Your task to perform on an android device: open the mobile data screen to see how much data has been used Image 0: 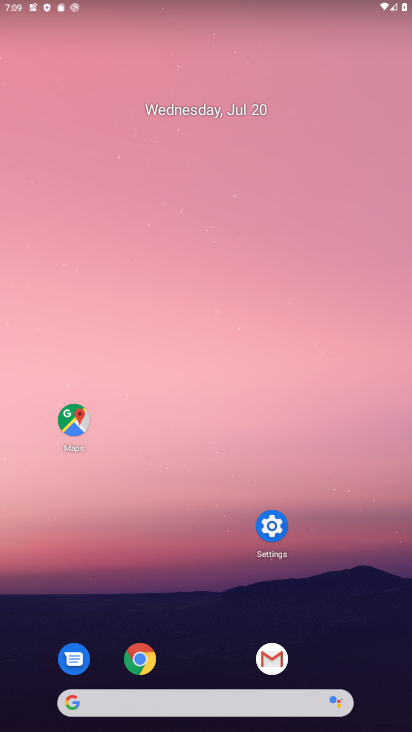
Step 0: click (277, 524)
Your task to perform on an android device: open the mobile data screen to see how much data has been used Image 1: 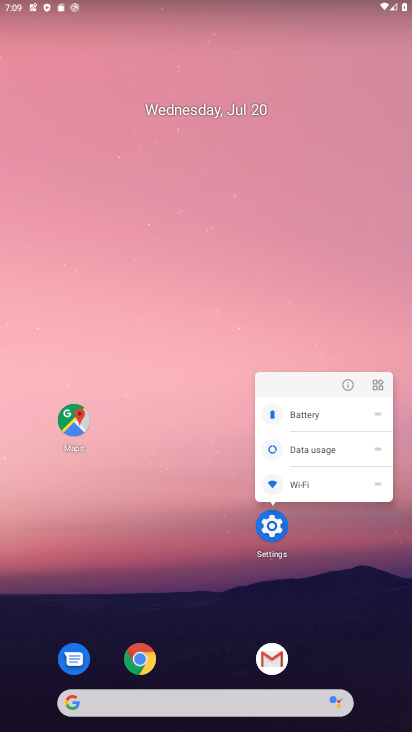
Step 1: click (263, 522)
Your task to perform on an android device: open the mobile data screen to see how much data has been used Image 2: 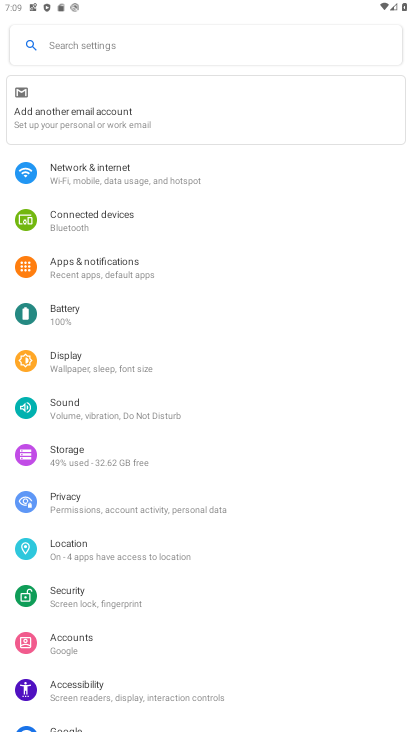
Step 2: click (93, 39)
Your task to perform on an android device: open the mobile data screen to see how much data has been used Image 3: 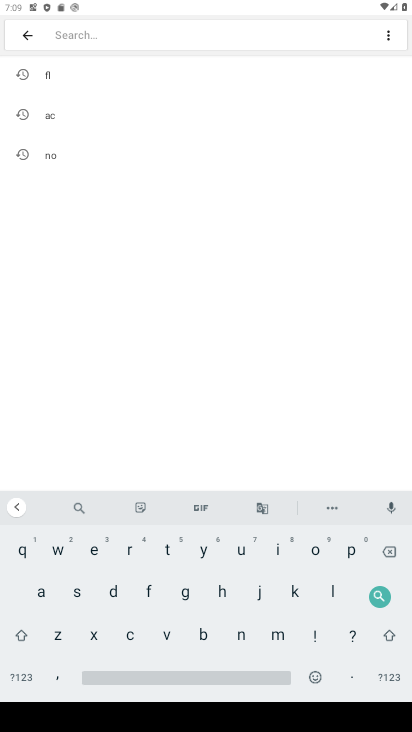
Step 3: click (113, 591)
Your task to perform on an android device: open the mobile data screen to see how much data has been used Image 4: 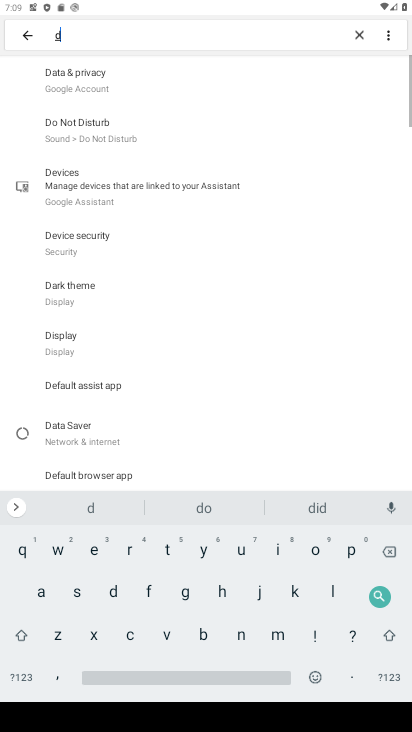
Step 4: click (38, 588)
Your task to perform on an android device: open the mobile data screen to see how much data has been used Image 5: 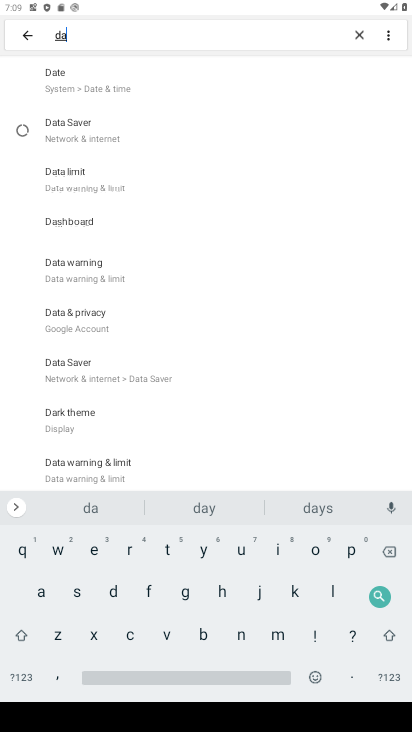
Step 5: click (166, 552)
Your task to perform on an android device: open the mobile data screen to see how much data has been used Image 6: 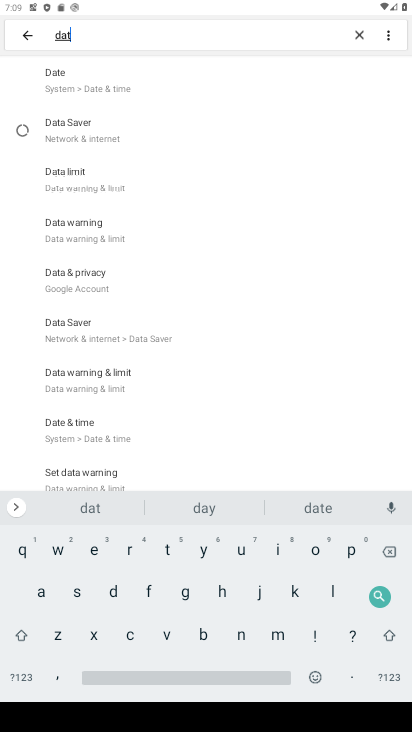
Step 6: click (42, 588)
Your task to perform on an android device: open the mobile data screen to see how much data has been used Image 7: 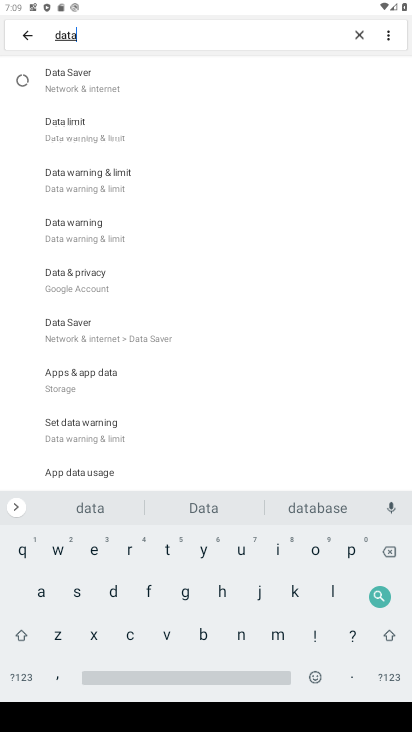
Step 7: click (154, 674)
Your task to perform on an android device: open the mobile data screen to see how much data has been used Image 8: 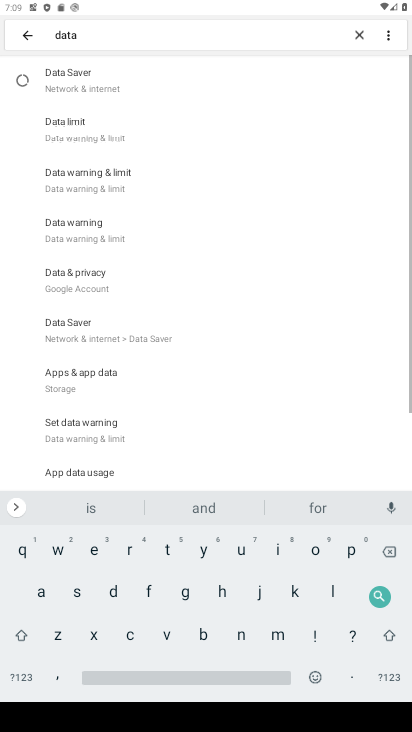
Step 8: click (240, 551)
Your task to perform on an android device: open the mobile data screen to see how much data has been used Image 9: 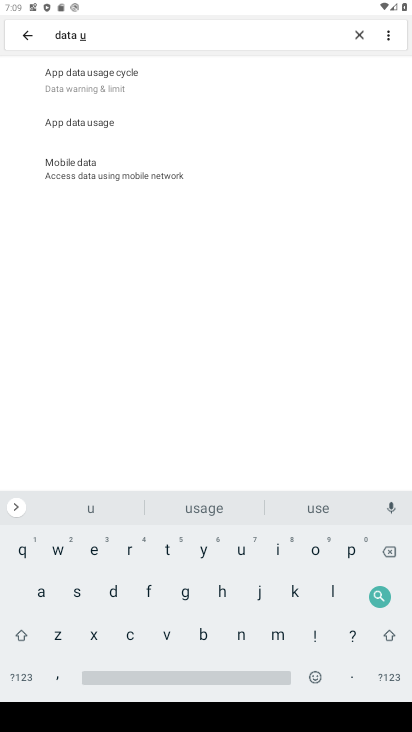
Step 9: click (100, 117)
Your task to perform on an android device: open the mobile data screen to see how much data has been used Image 10: 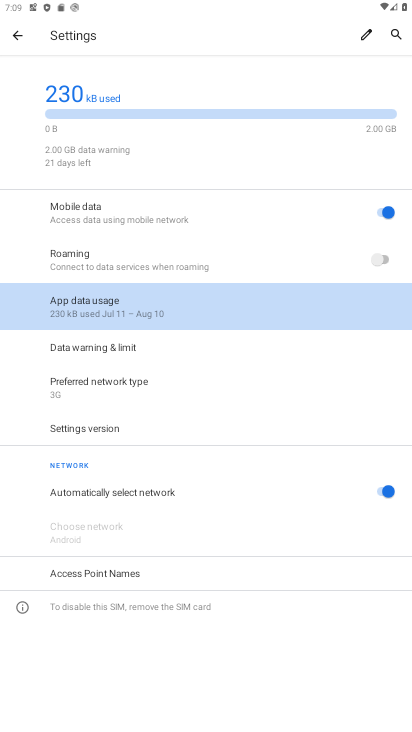
Step 10: click (97, 313)
Your task to perform on an android device: open the mobile data screen to see how much data has been used Image 11: 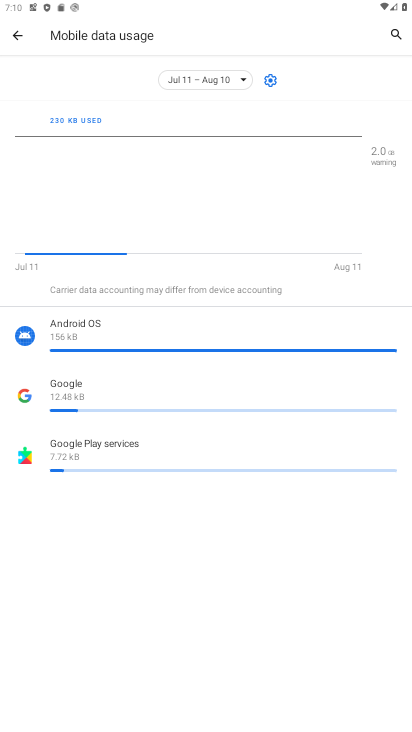
Step 11: task complete